Your task to perform on an android device: turn on priority inbox in the gmail app Image 0: 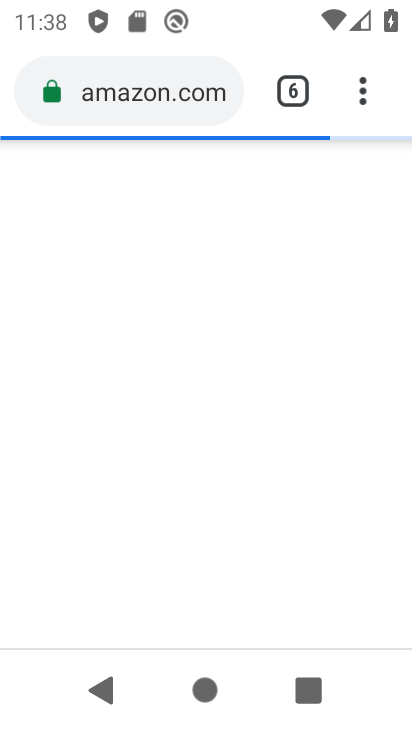
Step 0: press home button
Your task to perform on an android device: turn on priority inbox in the gmail app Image 1: 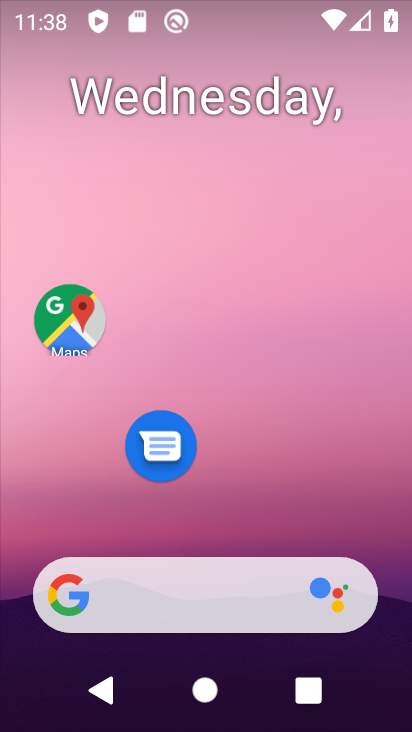
Step 1: drag from (258, 422) to (70, 36)
Your task to perform on an android device: turn on priority inbox in the gmail app Image 2: 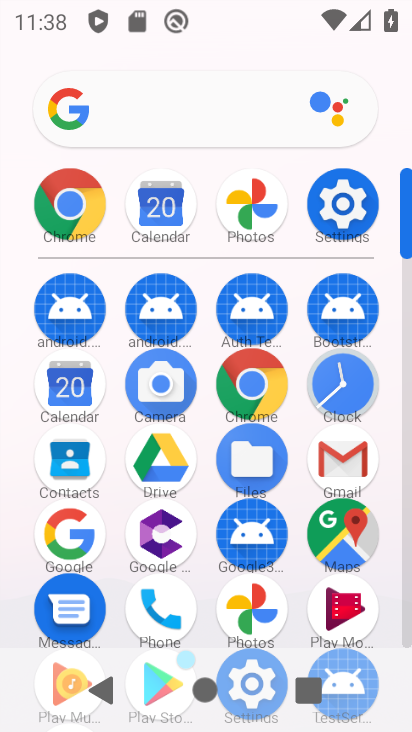
Step 2: click (333, 465)
Your task to perform on an android device: turn on priority inbox in the gmail app Image 3: 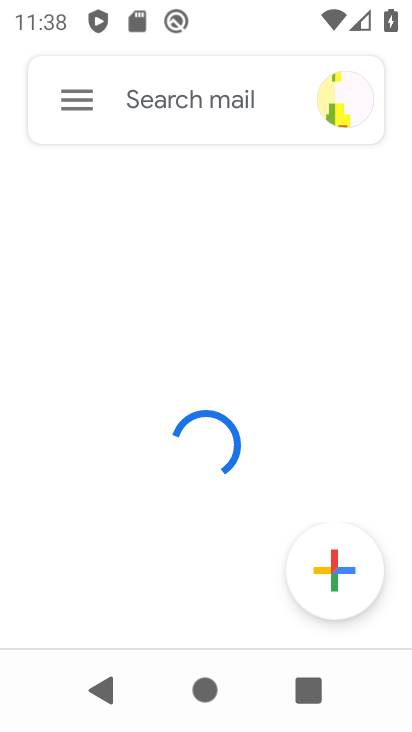
Step 3: click (70, 99)
Your task to perform on an android device: turn on priority inbox in the gmail app Image 4: 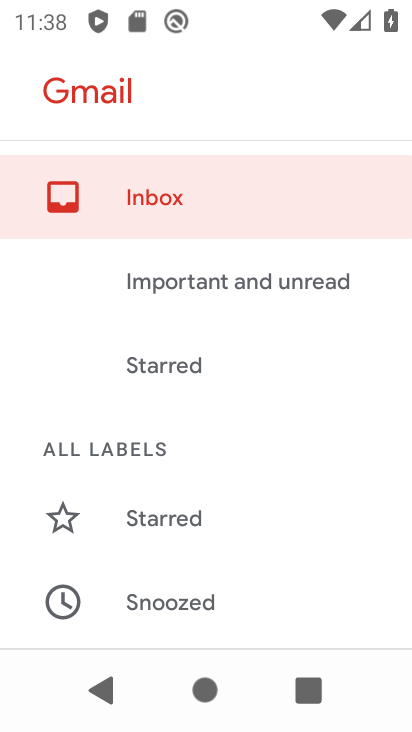
Step 4: drag from (211, 572) to (173, 174)
Your task to perform on an android device: turn on priority inbox in the gmail app Image 5: 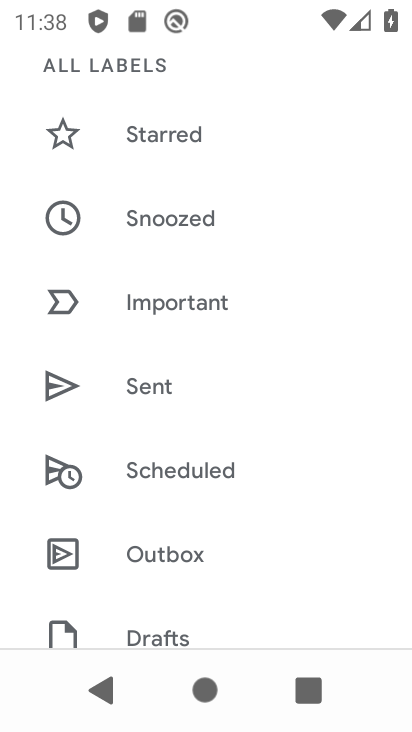
Step 5: drag from (221, 479) to (131, 121)
Your task to perform on an android device: turn on priority inbox in the gmail app Image 6: 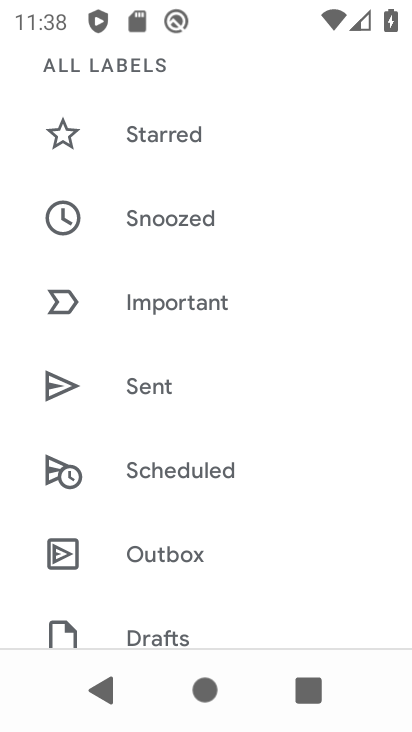
Step 6: drag from (290, 527) to (270, 131)
Your task to perform on an android device: turn on priority inbox in the gmail app Image 7: 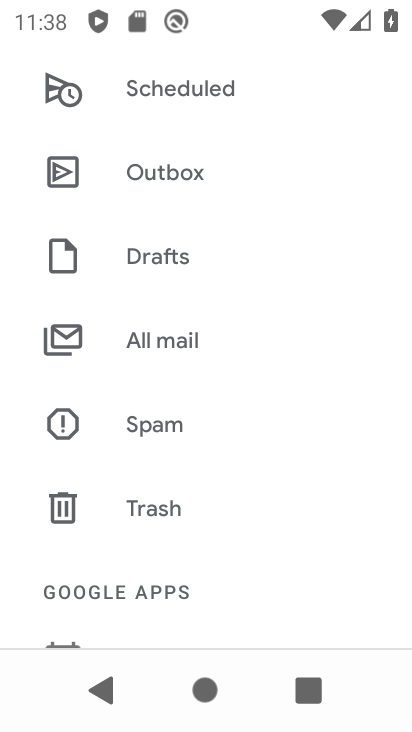
Step 7: drag from (239, 534) to (253, 112)
Your task to perform on an android device: turn on priority inbox in the gmail app Image 8: 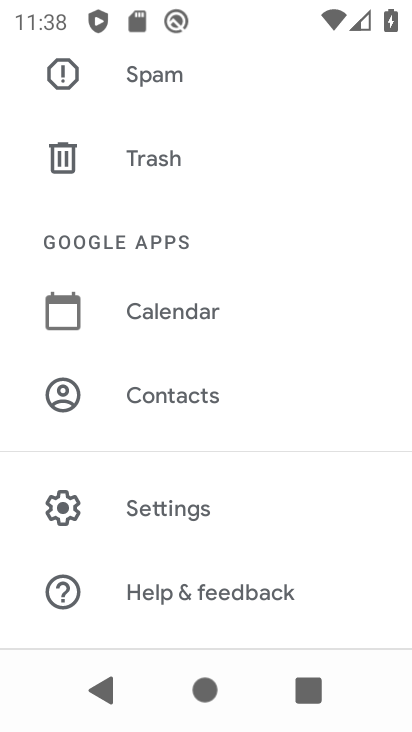
Step 8: click (156, 506)
Your task to perform on an android device: turn on priority inbox in the gmail app Image 9: 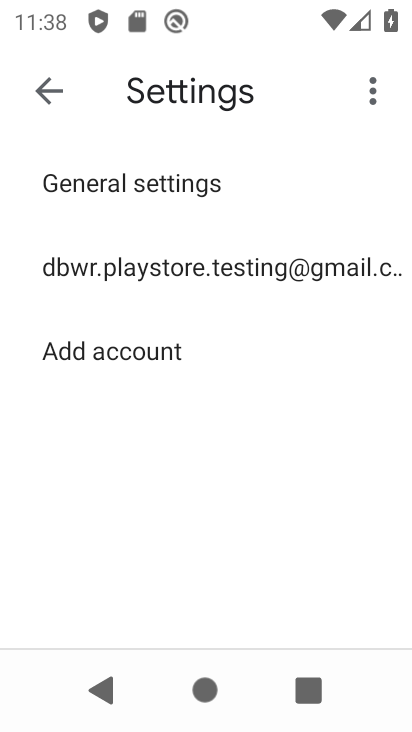
Step 9: click (180, 263)
Your task to perform on an android device: turn on priority inbox in the gmail app Image 10: 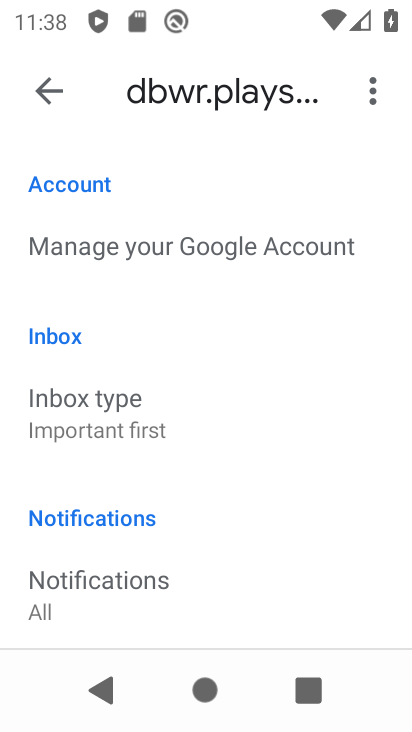
Step 10: click (94, 427)
Your task to perform on an android device: turn on priority inbox in the gmail app Image 11: 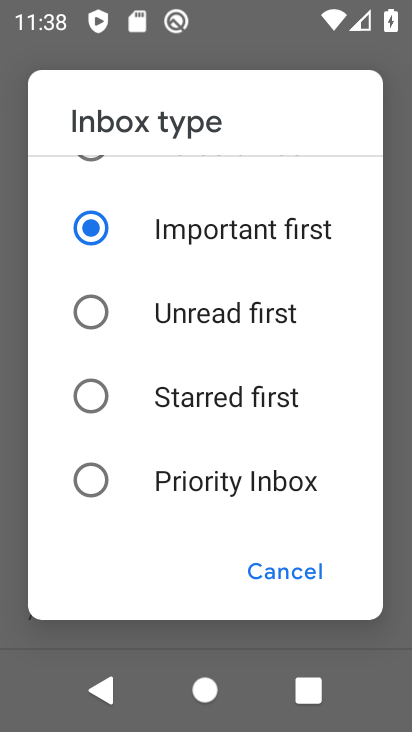
Step 11: click (91, 476)
Your task to perform on an android device: turn on priority inbox in the gmail app Image 12: 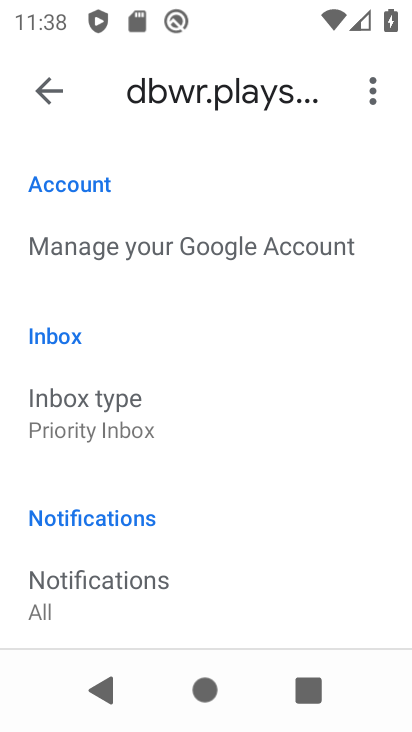
Step 12: task complete